Your task to perform on an android device: Go to Amazon Image 0: 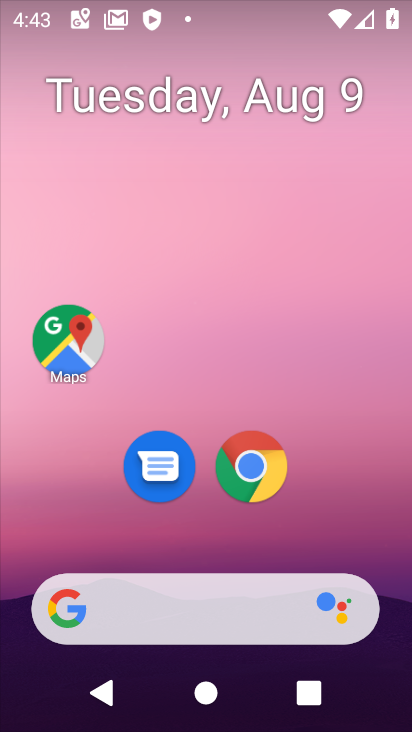
Step 0: drag from (204, 504) to (222, 25)
Your task to perform on an android device: Go to Amazon Image 1: 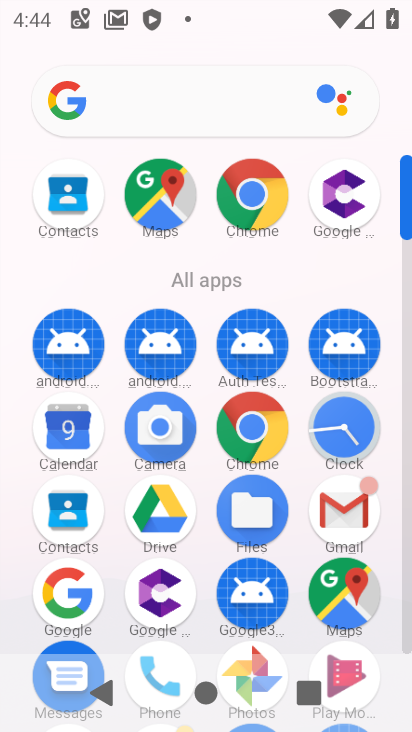
Step 1: click (242, 430)
Your task to perform on an android device: Go to Amazon Image 2: 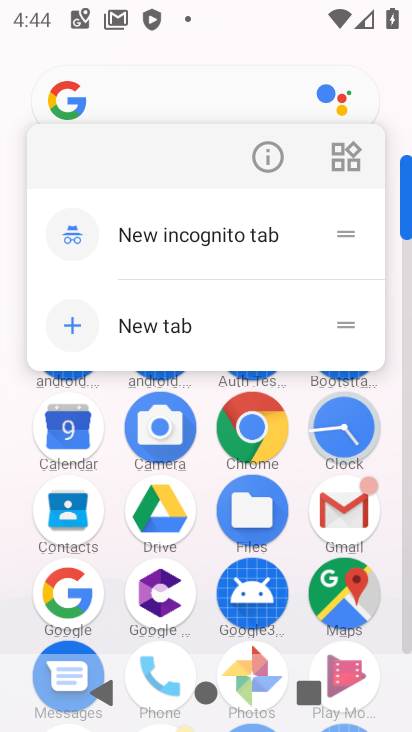
Step 2: click (275, 143)
Your task to perform on an android device: Go to Amazon Image 3: 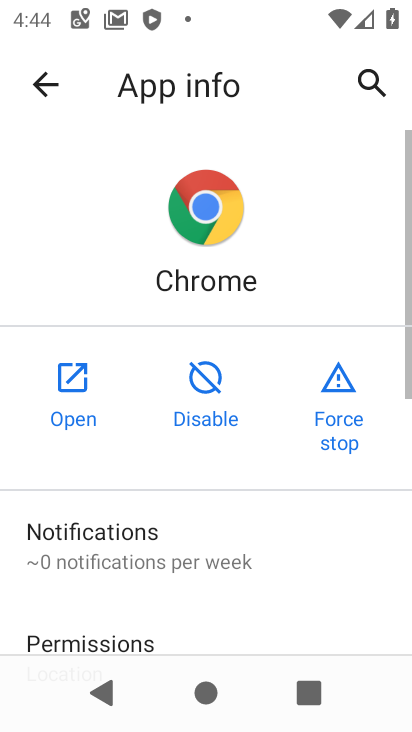
Step 3: click (81, 374)
Your task to perform on an android device: Go to Amazon Image 4: 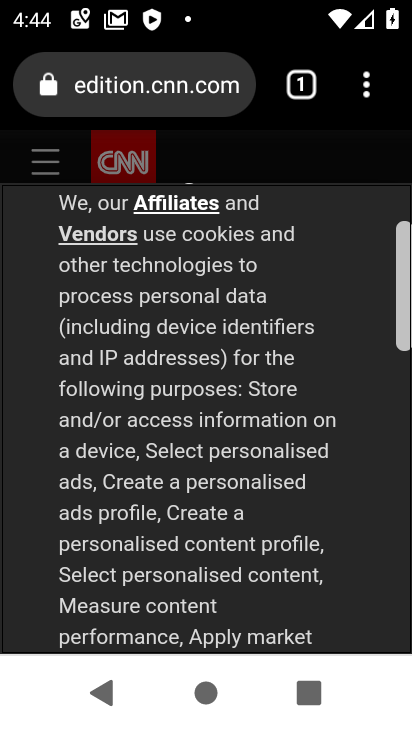
Step 4: click (207, 82)
Your task to perform on an android device: Go to Amazon Image 5: 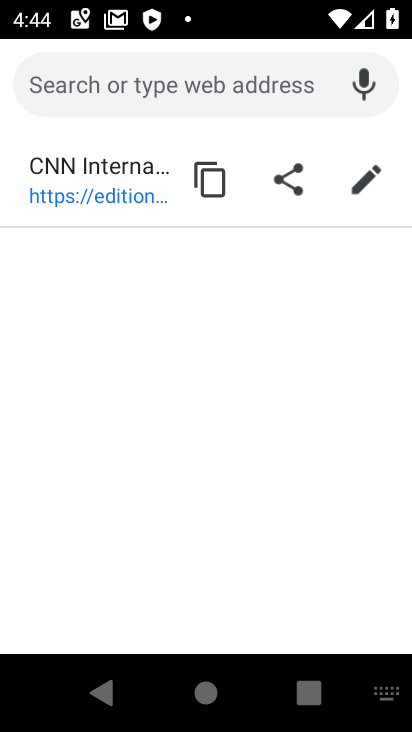
Step 5: click (135, 72)
Your task to perform on an android device: Go to Amazon Image 6: 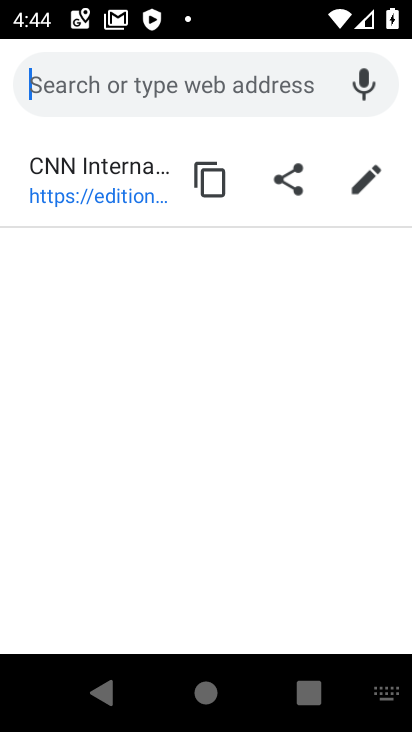
Step 6: type "Amazon"
Your task to perform on an android device: Go to Amazon Image 7: 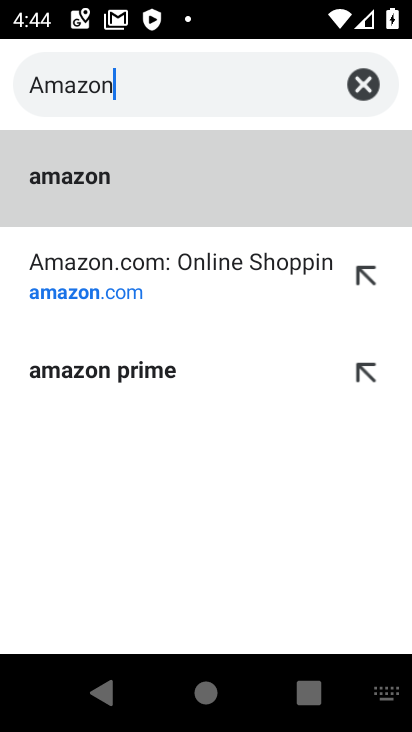
Step 7: click (60, 280)
Your task to perform on an android device: Go to Amazon Image 8: 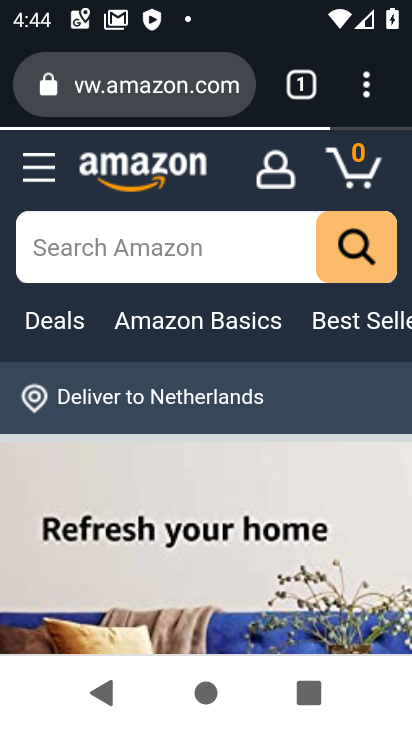
Step 8: task complete